Your task to perform on an android device: Open accessibility settings Image 0: 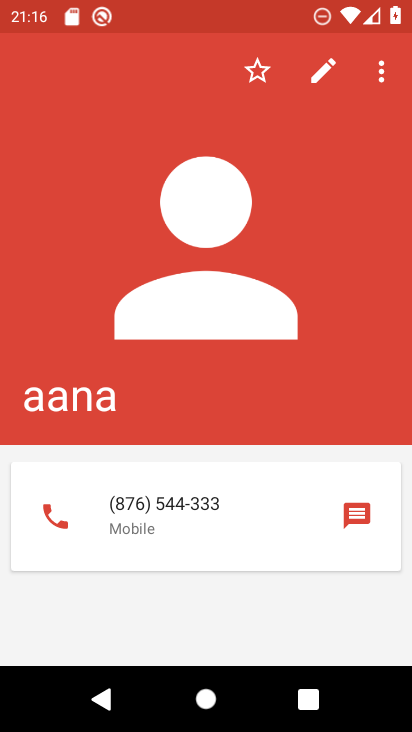
Step 0: press home button
Your task to perform on an android device: Open accessibility settings Image 1: 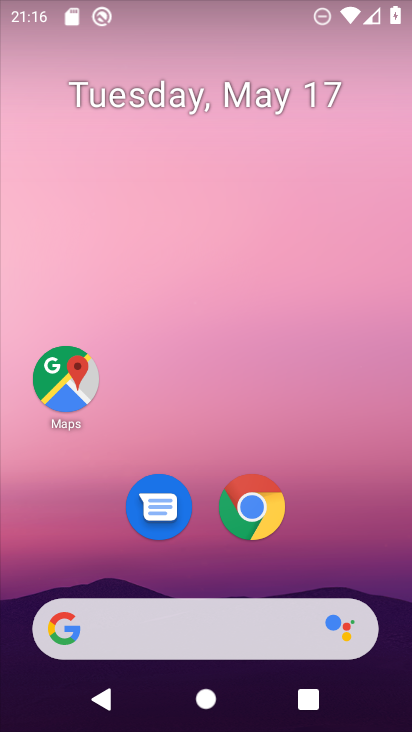
Step 1: drag from (343, 576) to (286, 5)
Your task to perform on an android device: Open accessibility settings Image 2: 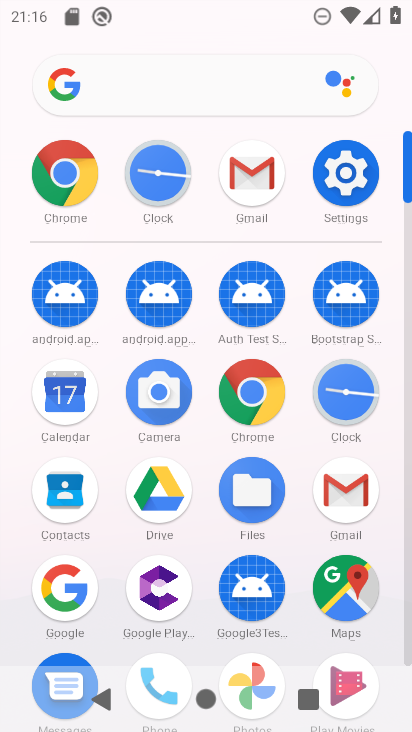
Step 2: click (342, 172)
Your task to perform on an android device: Open accessibility settings Image 3: 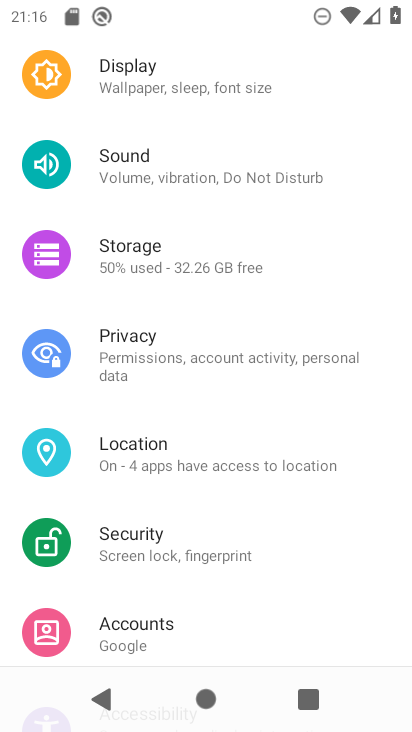
Step 3: drag from (320, 505) to (231, 152)
Your task to perform on an android device: Open accessibility settings Image 4: 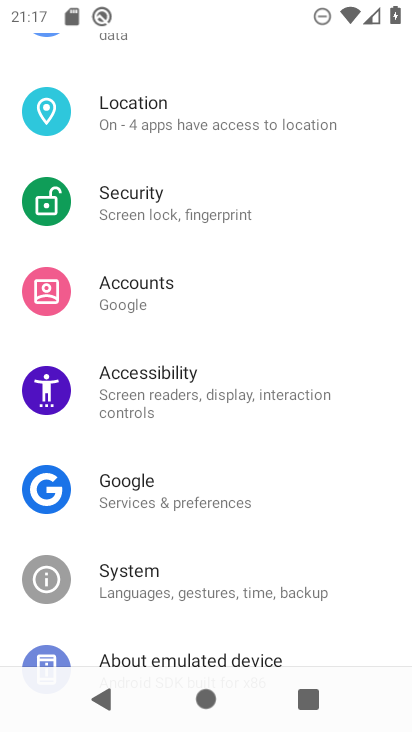
Step 4: click (105, 375)
Your task to perform on an android device: Open accessibility settings Image 5: 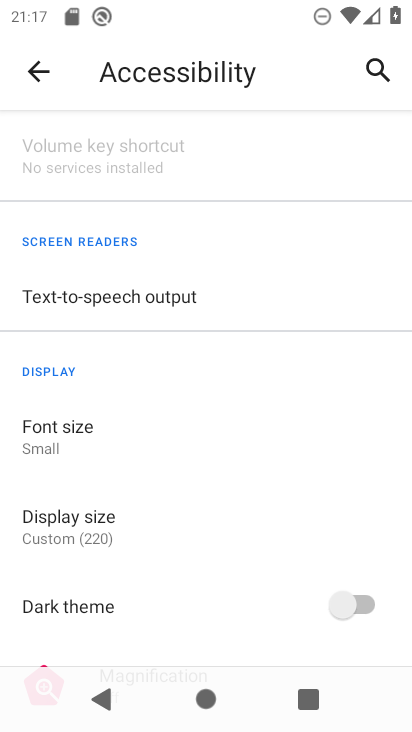
Step 5: task complete